Your task to perform on an android device: When is my next meeting? Image 0: 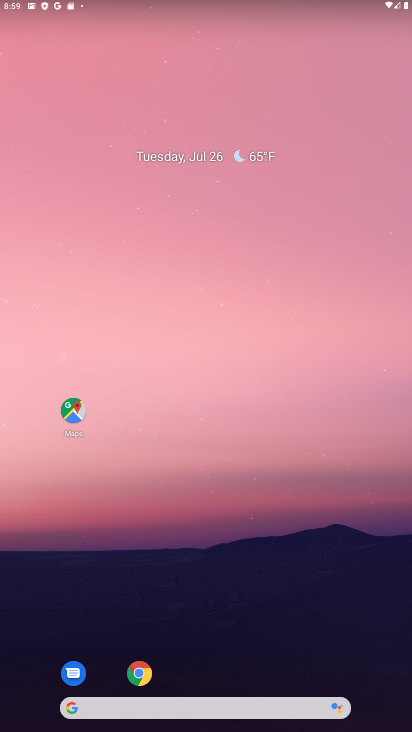
Step 0: drag from (384, 663) to (302, 333)
Your task to perform on an android device: When is my next meeting? Image 1: 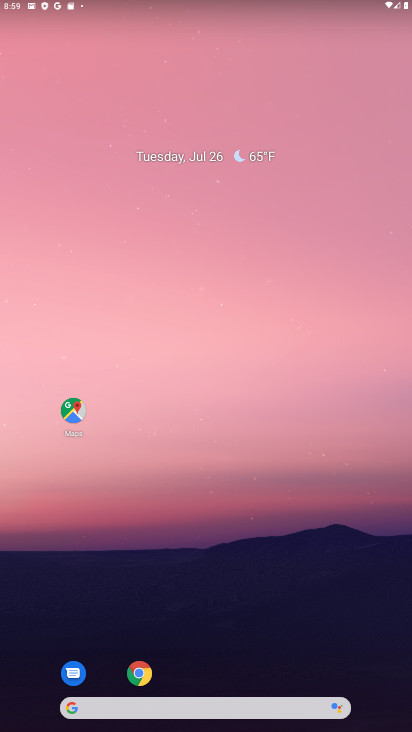
Step 1: drag from (368, 647) to (352, 243)
Your task to perform on an android device: When is my next meeting? Image 2: 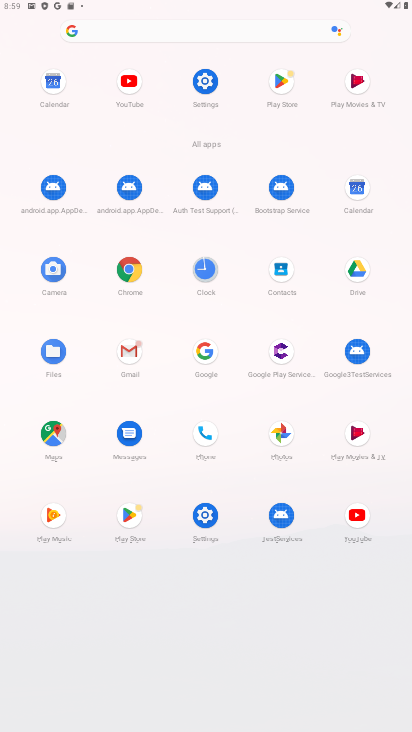
Step 2: click (356, 189)
Your task to perform on an android device: When is my next meeting? Image 3: 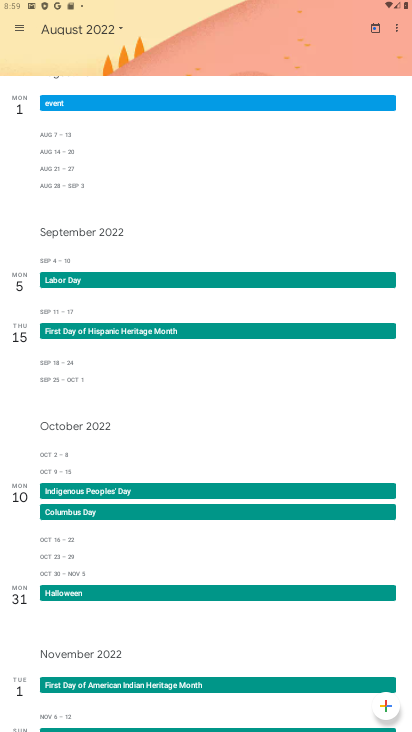
Step 3: task complete